Your task to perform on an android device: toggle javascript in the chrome app Image 0: 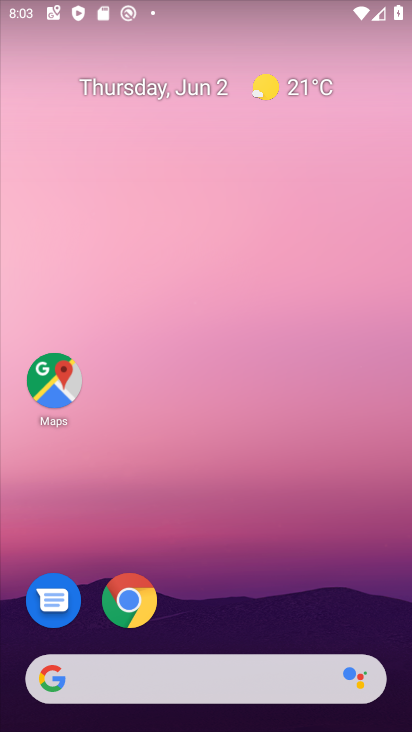
Step 0: drag from (330, 603) to (355, 183)
Your task to perform on an android device: toggle javascript in the chrome app Image 1: 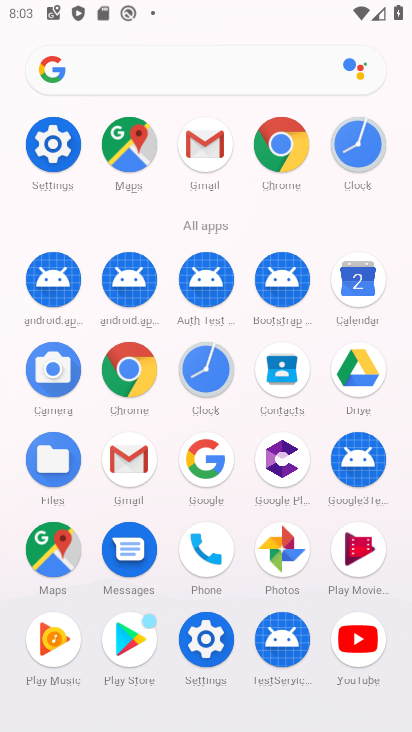
Step 1: click (142, 383)
Your task to perform on an android device: toggle javascript in the chrome app Image 2: 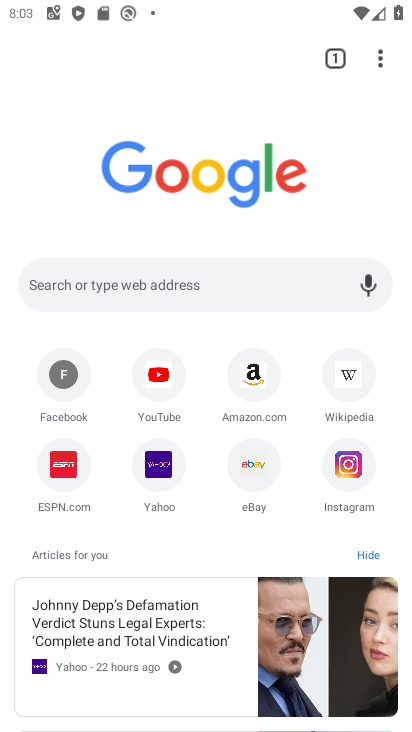
Step 2: click (378, 72)
Your task to perform on an android device: toggle javascript in the chrome app Image 3: 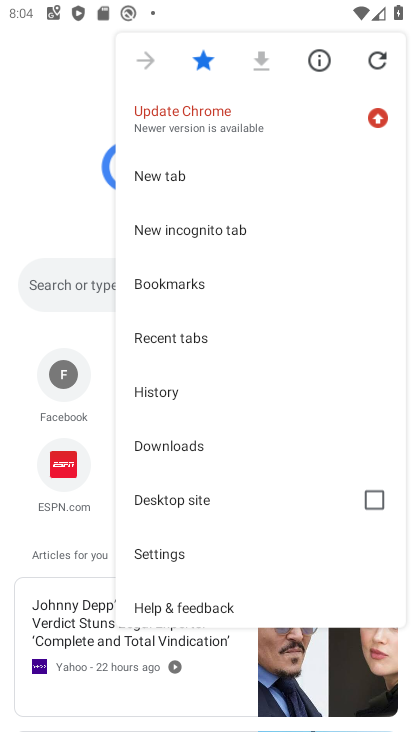
Step 3: click (183, 553)
Your task to perform on an android device: toggle javascript in the chrome app Image 4: 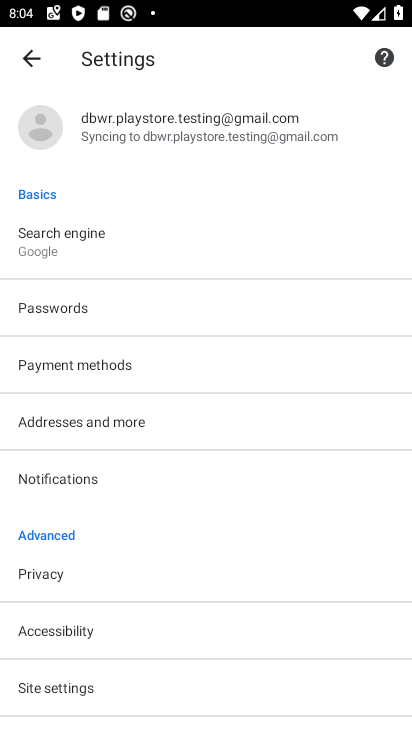
Step 4: drag from (353, 613) to (351, 378)
Your task to perform on an android device: toggle javascript in the chrome app Image 5: 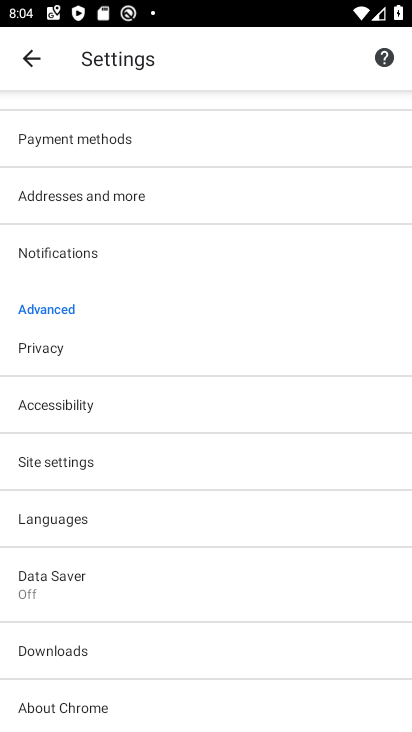
Step 5: drag from (355, 545) to (360, 377)
Your task to perform on an android device: toggle javascript in the chrome app Image 6: 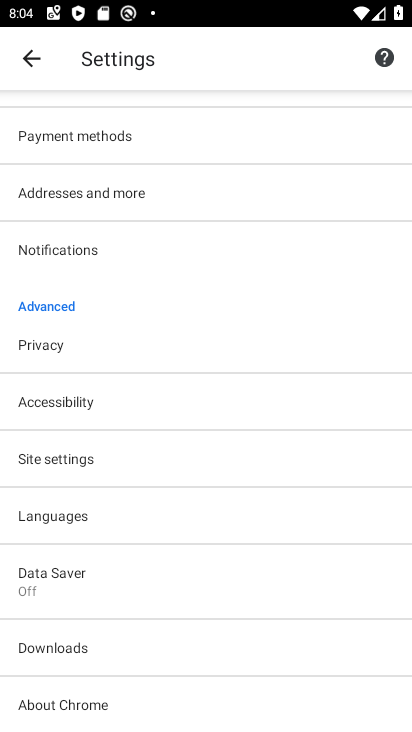
Step 6: click (242, 447)
Your task to perform on an android device: toggle javascript in the chrome app Image 7: 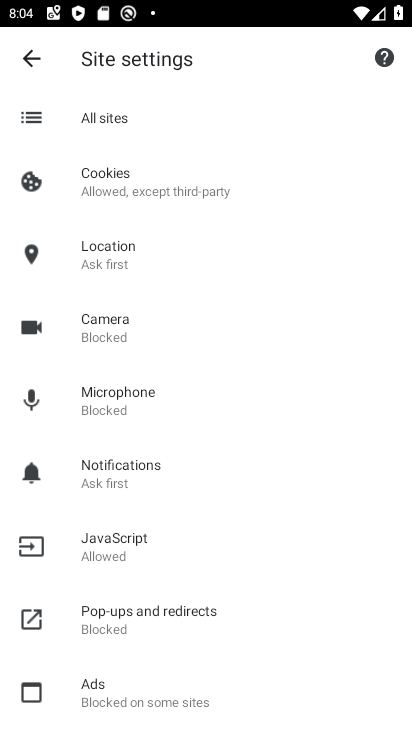
Step 7: drag from (301, 550) to (322, 373)
Your task to perform on an android device: toggle javascript in the chrome app Image 8: 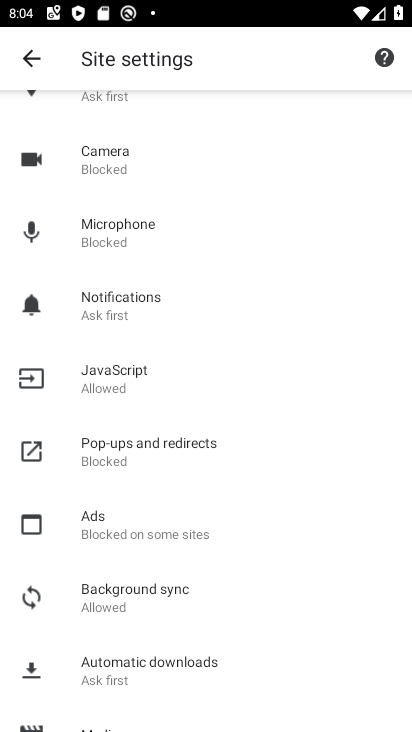
Step 8: click (191, 376)
Your task to perform on an android device: toggle javascript in the chrome app Image 9: 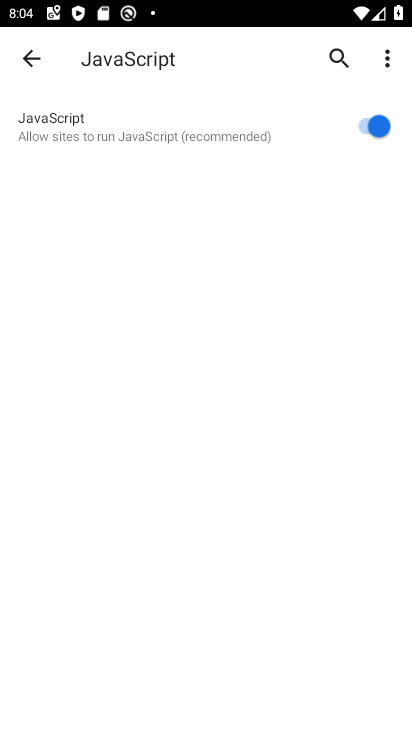
Step 9: click (369, 131)
Your task to perform on an android device: toggle javascript in the chrome app Image 10: 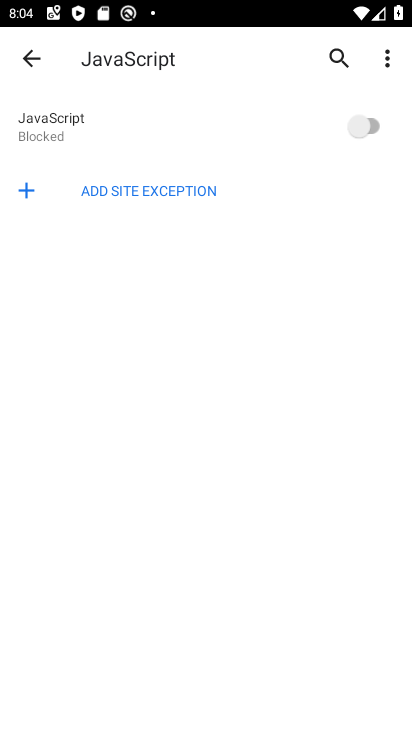
Step 10: task complete